Your task to perform on an android device: Open calendar and show me the first week of next month Image 0: 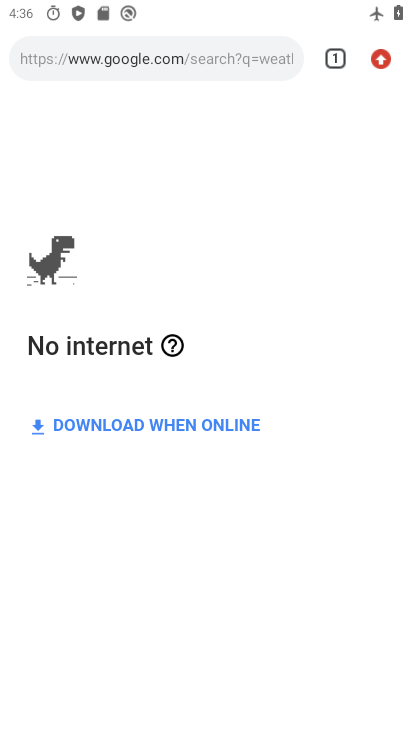
Step 0: press home button
Your task to perform on an android device: Open calendar and show me the first week of next month Image 1: 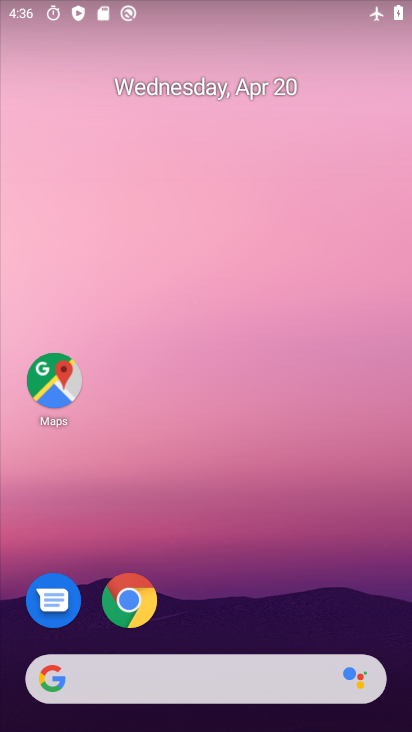
Step 1: click (309, 573)
Your task to perform on an android device: Open calendar and show me the first week of next month Image 2: 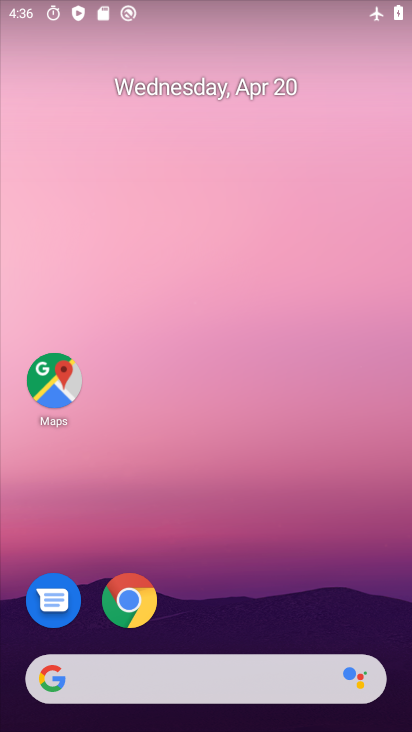
Step 2: drag from (246, 484) to (264, 111)
Your task to perform on an android device: Open calendar and show me the first week of next month Image 3: 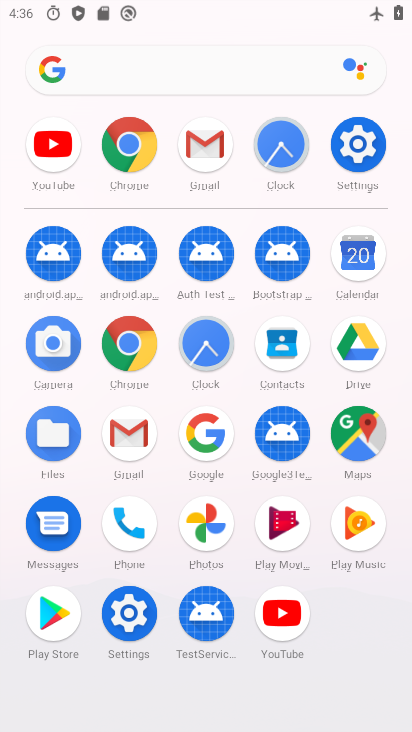
Step 3: click (355, 257)
Your task to perform on an android device: Open calendar and show me the first week of next month Image 4: 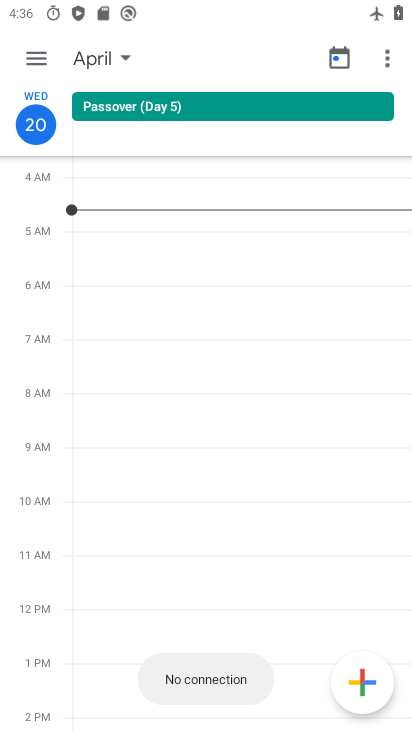
Step 4: click (355, 257)
Your task to perform on an android device: Open calendar and show me the first week of next month Image 5: 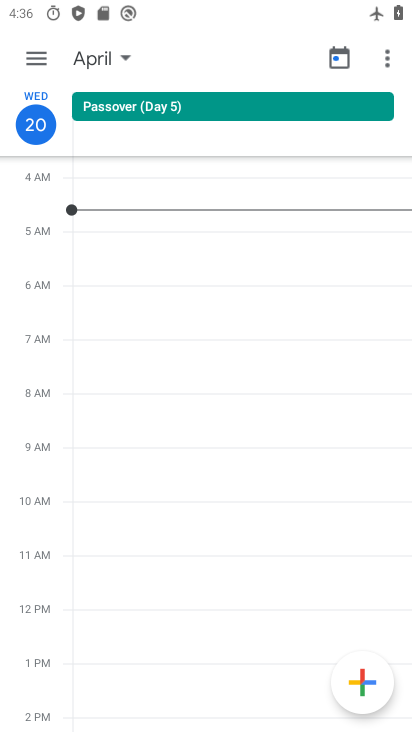
Step 5: click (105, 61)
Your task to perform on an android device: Open calendar and show me the first week of next month Image 6: 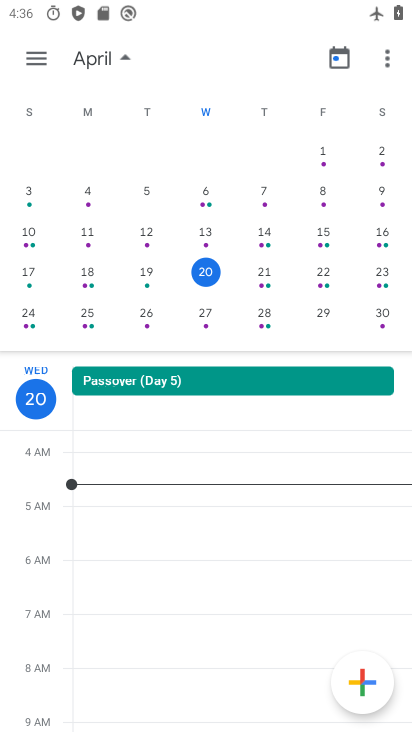
Step 6: drag from (365, 257) to (55, 239)
Your task to perform on an android device: Open calendar and show me the first week of next month Image 7: 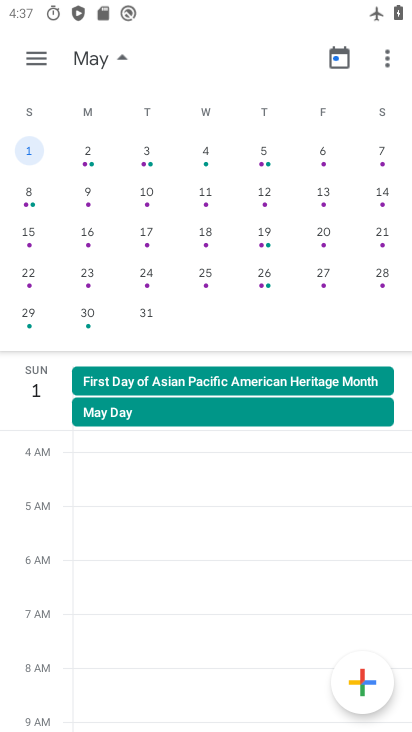
Step 7: click (209, 152)
Your task to perform on an android device: Open calendar and show me the first week of next month Image 8: 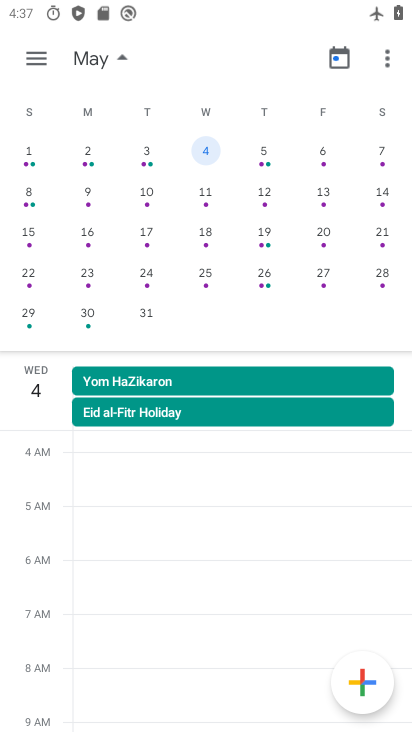
Step 8: task complete